Your task to perform on an android device: toggle translation in the chrome app Image 0: 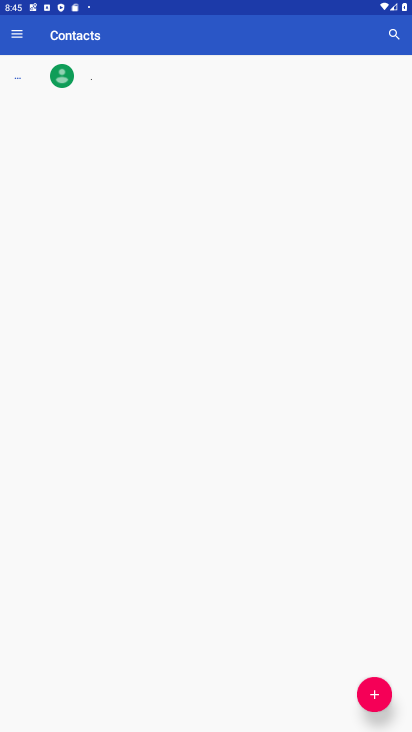
Step 0: press home button
Your task to perform on an android device: toggle translation in the chrome app Image 1: 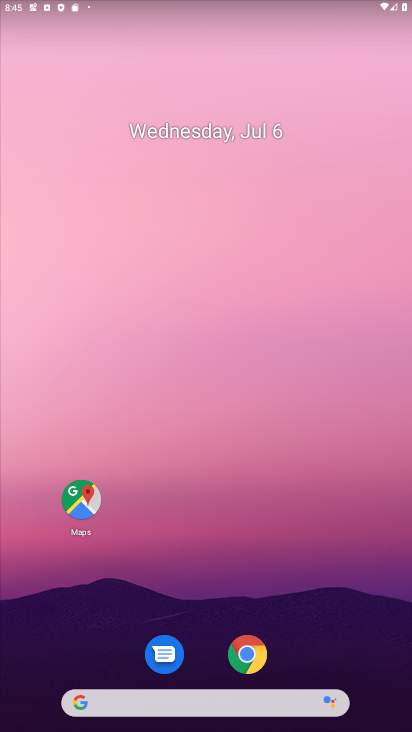
Step 1: click (239, 649)
Your task to perform on an android device: toggle translation in the chrome app Image 2: 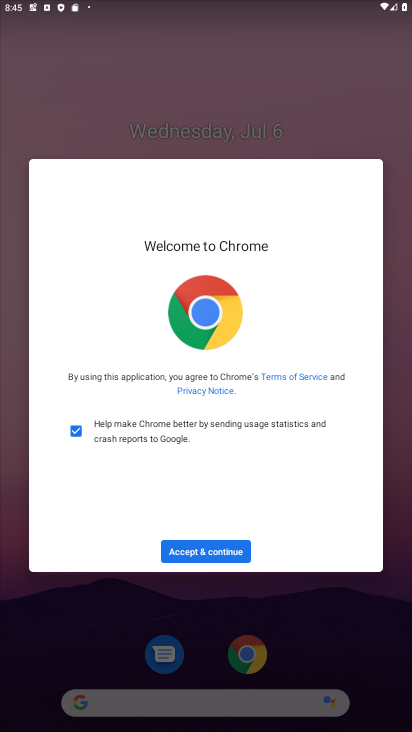
Step 2: click (194, 547)
Your task to perform on an android device: toggle translation in the chrome app Image 3: 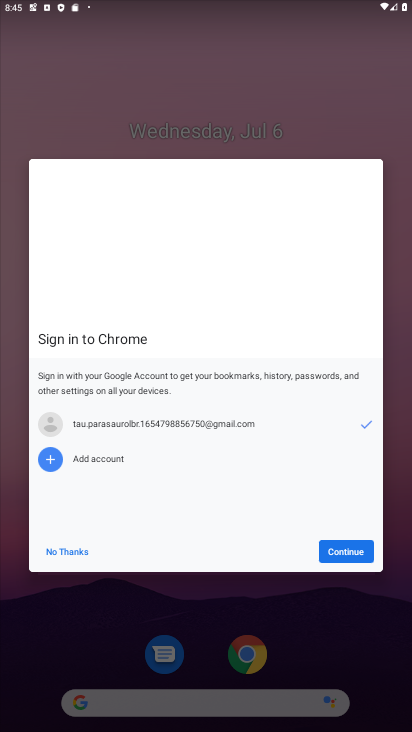
Step 3: click (347, 551)
Your task to perform on an android device: toggle translation in the chrome app Image 4: 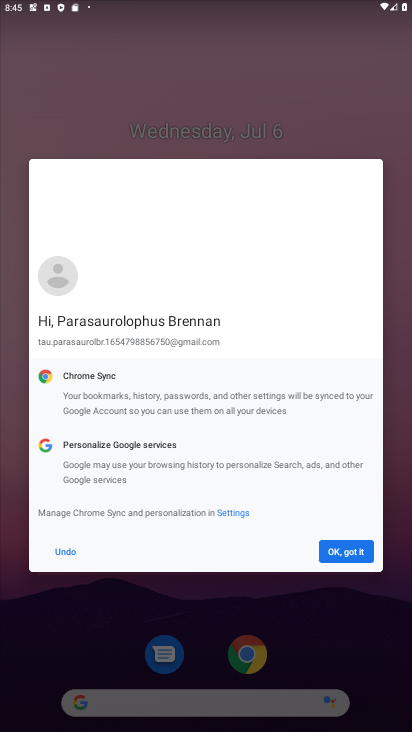
Step 4: click (347, 551)
Your task to perform on an android device: toggle translation in the chrome app Image 5: 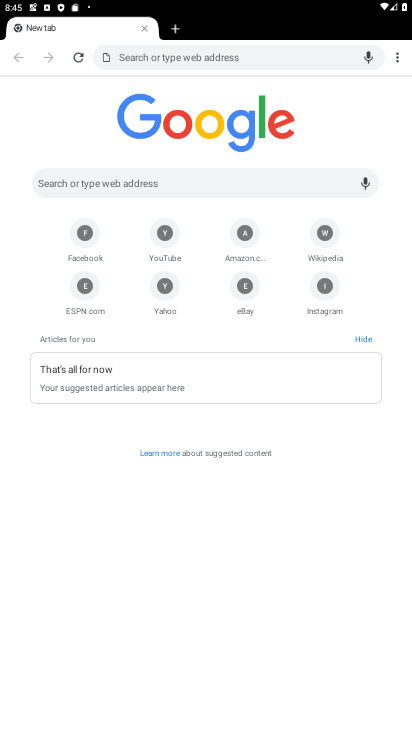
Step 5: click (389, 63)
Your task to perform on an android device: toggle translation in the chrome app Image 6: 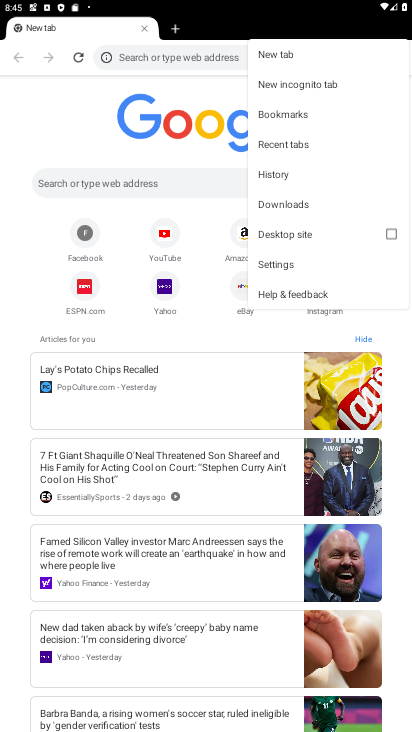
Step 6: click (290, 265)
Your task to perform on an android device: toggle translation in the chrome app Image 7: 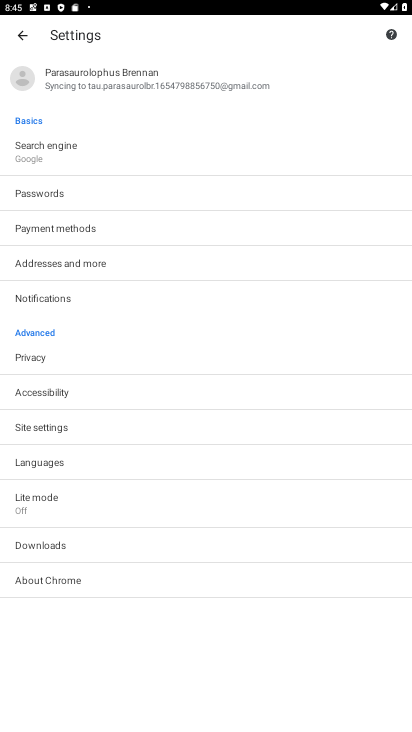
Step 7: click (72, 457)
Your task to perform on an android device: toggle translation in the chrome app Image 8: 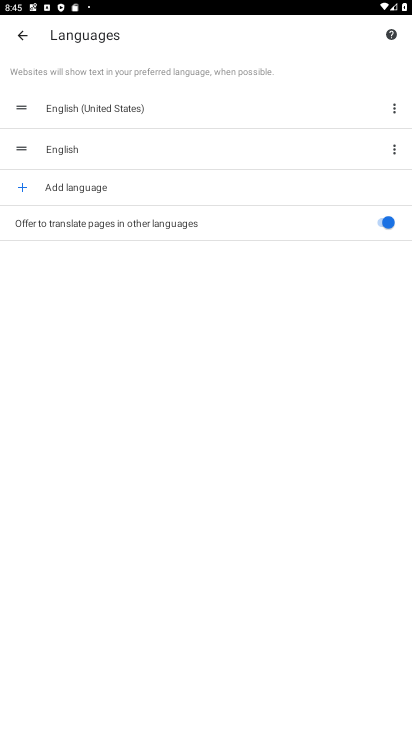
Step 8: click (380, 227)
Your task to perform on an android device: toggle translation in the chrome app Image 9: 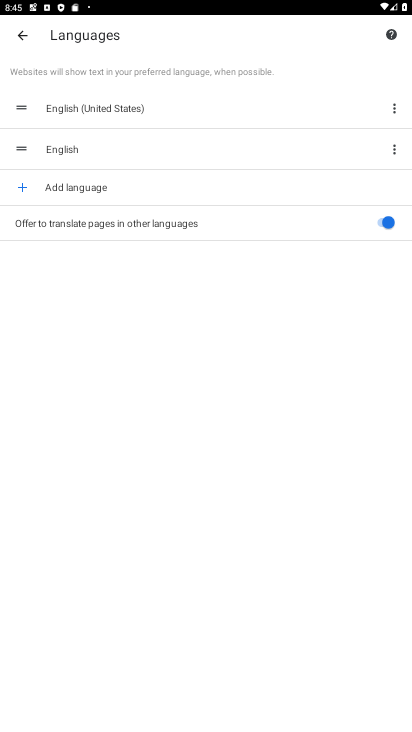
Step 9: click (380, 227)
Your task to perform on an android device: toggle translation in the chrome app Image 10: 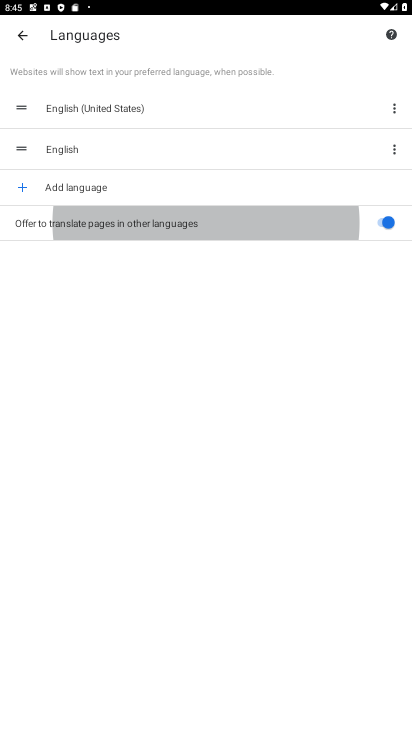
Step 10: click (380, 227)
Your task to perform on an android device: toggle translation in the chrome app Image 11: 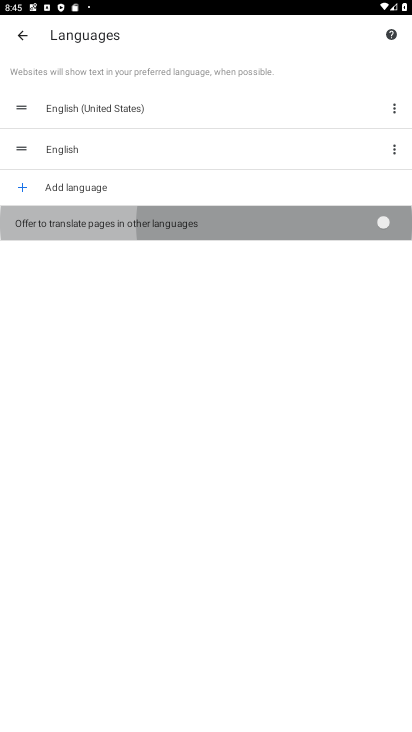
Step 11: click (380, 227)
Your task to perform on an android device: toggle translation in the chrome app Image 12: 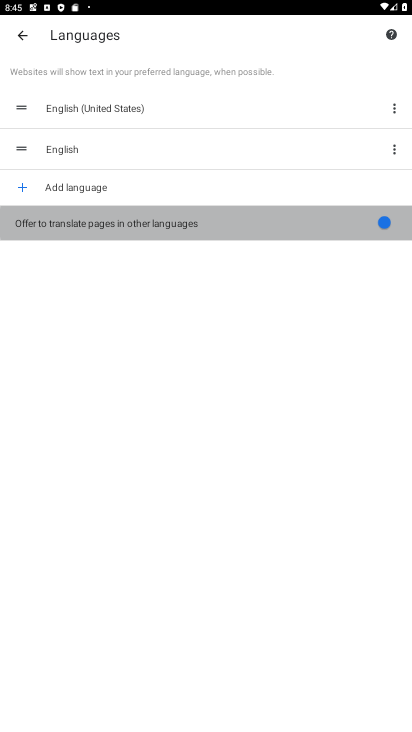
Step 12: click (380, 227)
Your task to perform on an android device: toggle translation in the chrome app Image 13: 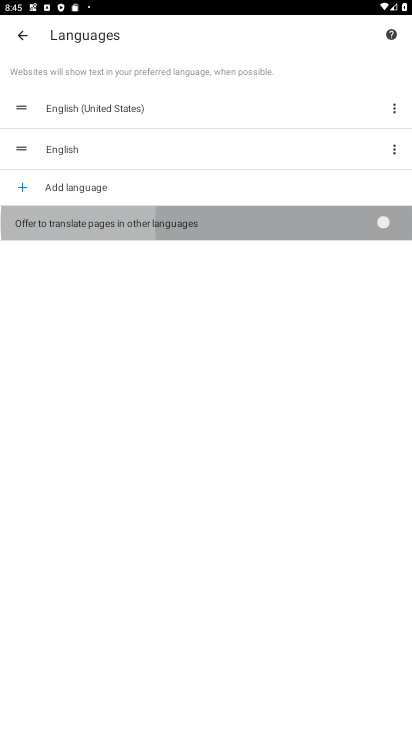
Step 13: click (380, 227)
Your task to perform on an android device: toggle translation in the chrome app Image 14: 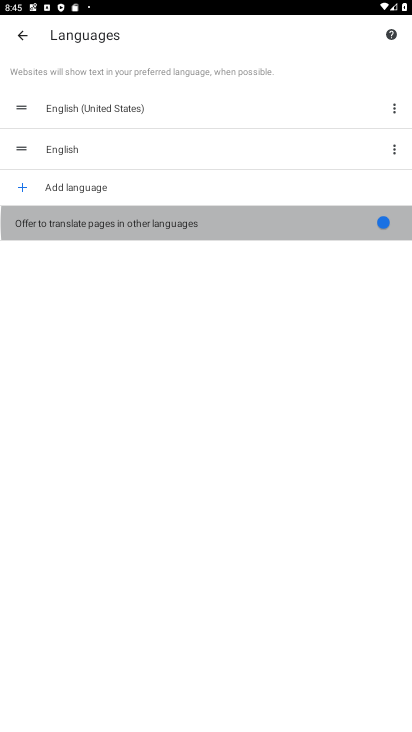
Step 14: click (380, 227)
Your task to perform on an android device: toggle translation in the chrome app Image 15: 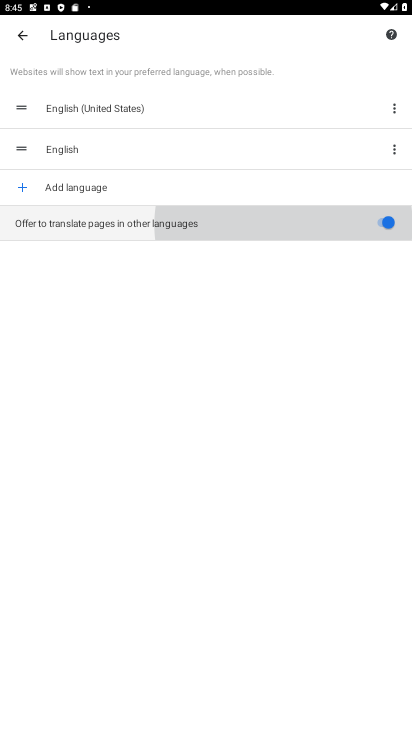
Step 15: click (380, 227)
Your task to perform on an android device: toggle translation in the chrome app Image 16: 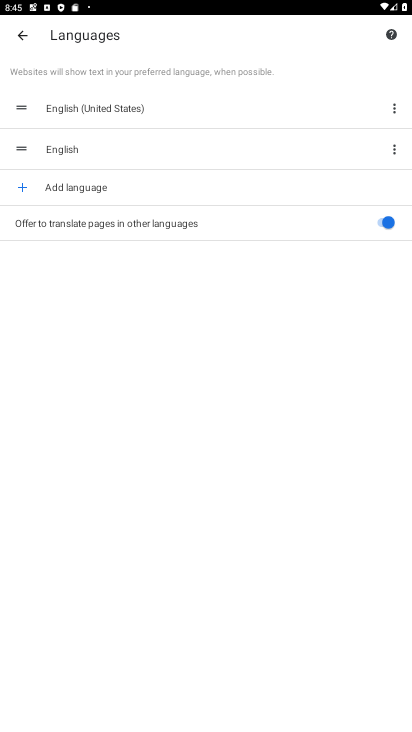
Step 16: task complete